Your task to perform on an android device: Open Google Chrome Image 0: 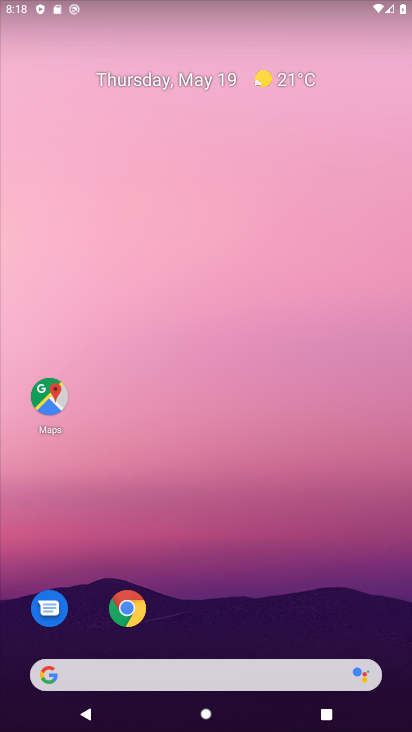
Step 0: drag from (271, 479) to (202, 32)
Your task to perform on an android device: Open Google Chrome Image 1: 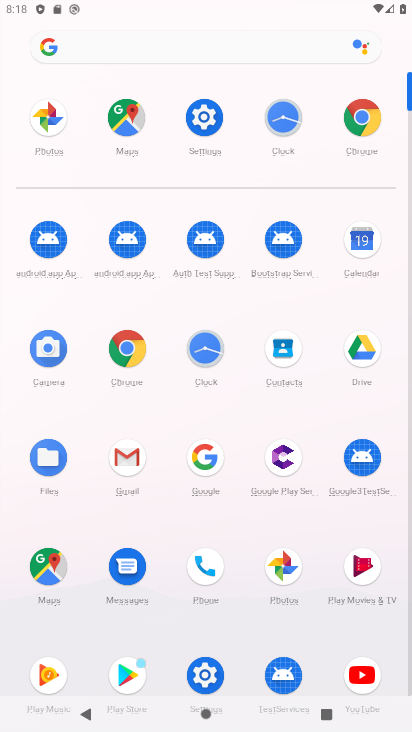
Step 1: click (355, 108)
Your task to perform on an android device: Open Google Chrome Image 2: 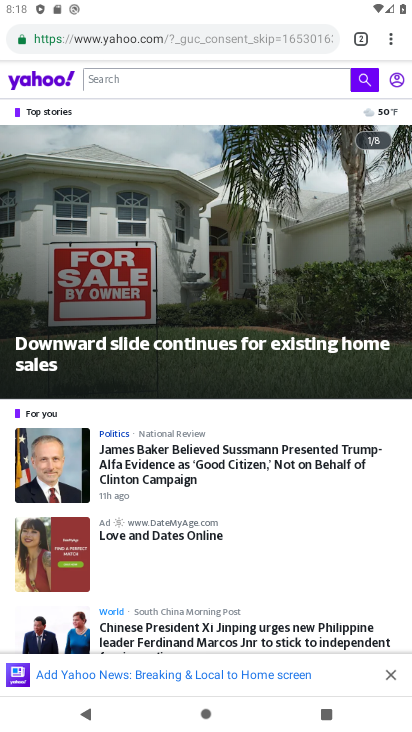
Step 2: task complete